Your task to perform on an android device: choose inbox layout in the gmail app Image 0: 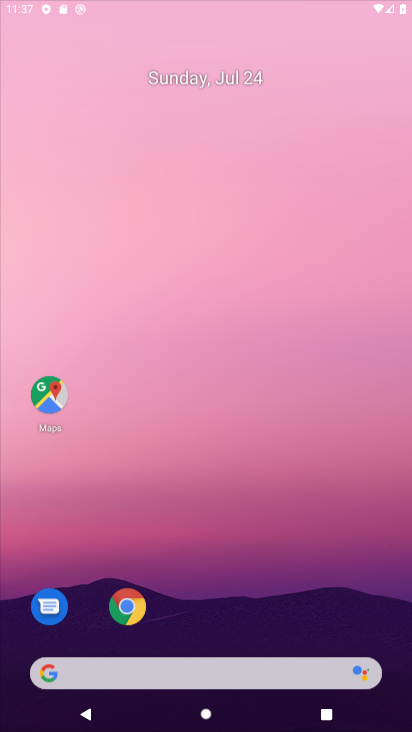
Step 0: drag from (216, 659) to (322, 96)
Your task to perform on an android device: choose inbox layout in the gmail app Image 1: 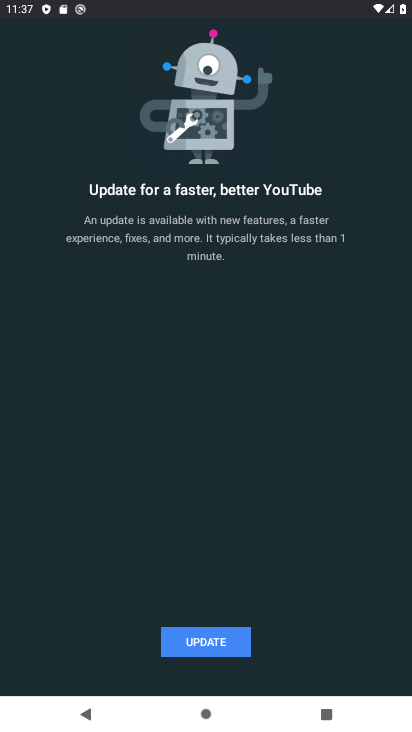
Step 1: press home button
Your task to perform on an android device: choose inbox layout in the gmail app Image 2: 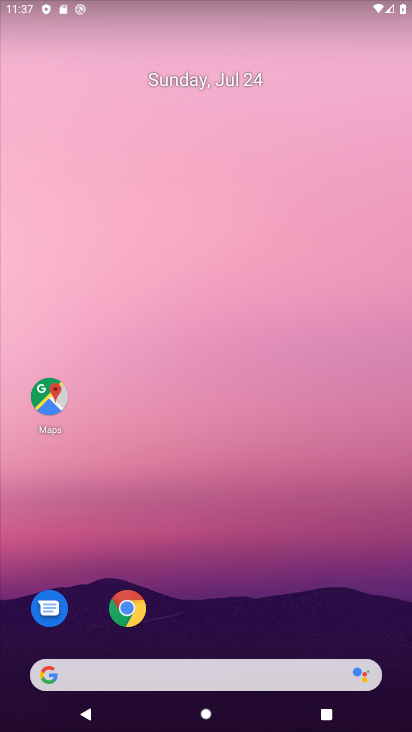
Step 2: drag from (281, 562) to (349, 269)
Your task to perform on an android device: choose inbox layout in the gmail app Image 3: 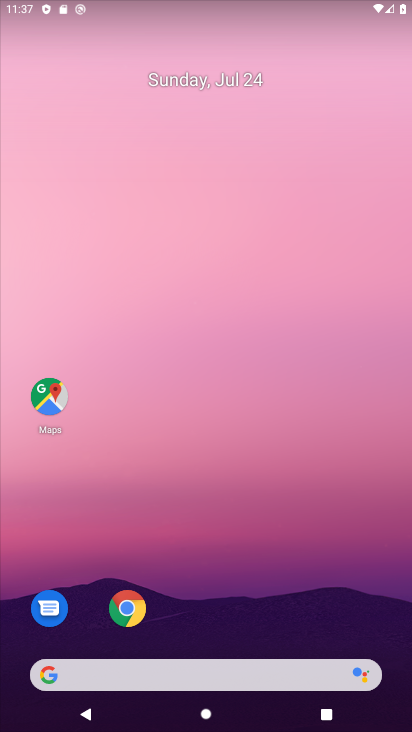
Step 3: drag from (261, 564) to (360, 71)
Your task to perform on an android device: choose inbox layout in the gmail app Image 4: 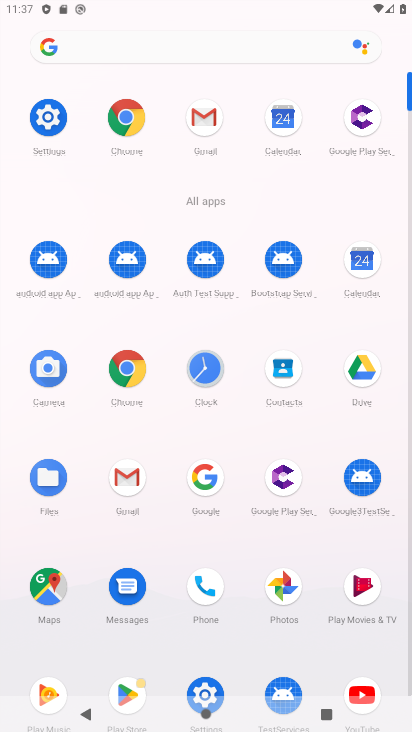
Step 4: click (131, 490)
Your task to perform on an android device: choose inbox layout in the gmail app Image 5: 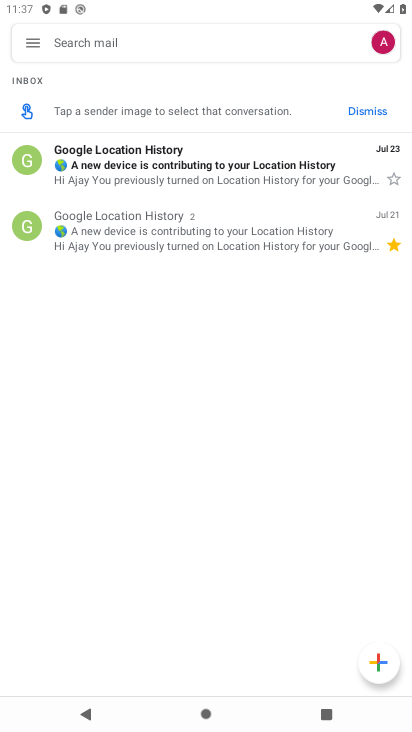
Step 5: click (30, 44)
Your task to perform on an android device: choose inbox layout in the gmail app Image 6: 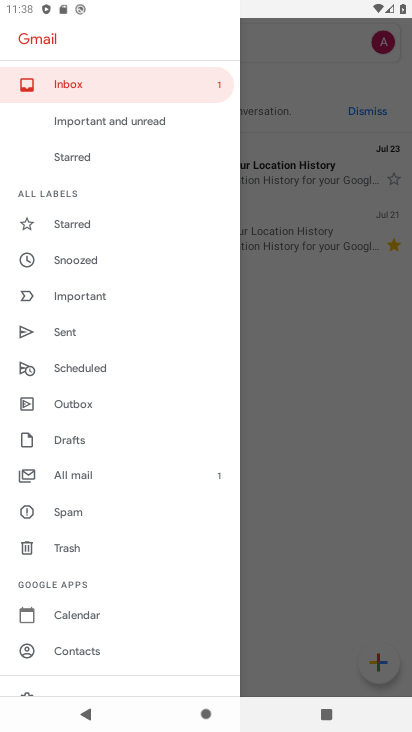
Step 6: task complete